Your task to perform on an android device: Clear all items from cart on costco. Add dell alienware to the cart on costco Image 0: 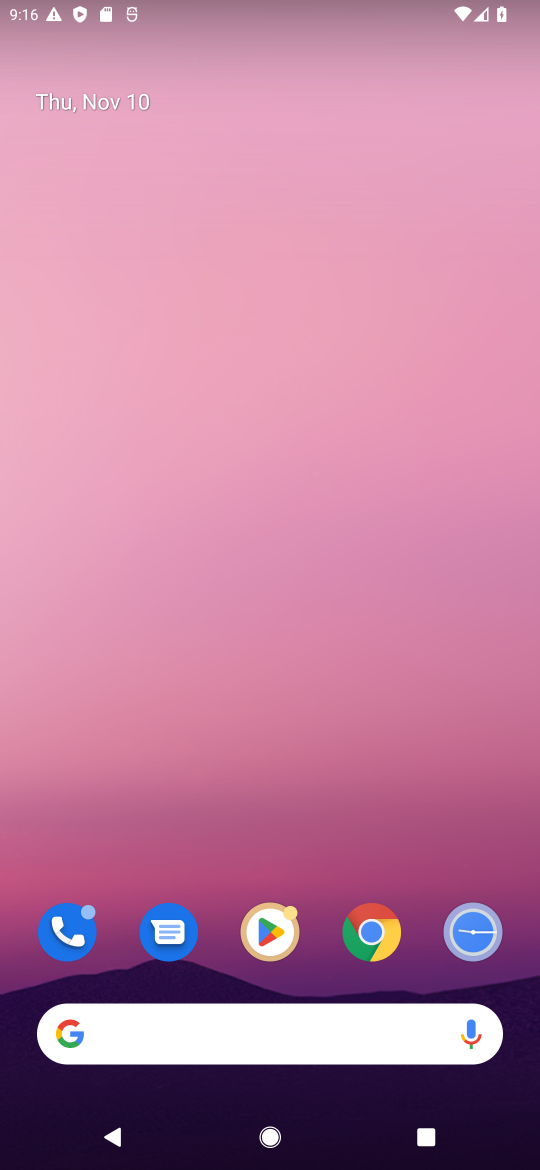
Step 0: click (371, 925)
Your task to perform on an android device: Clear all items from cart on costco. Add dell alienware to the cart on costco Image 1: 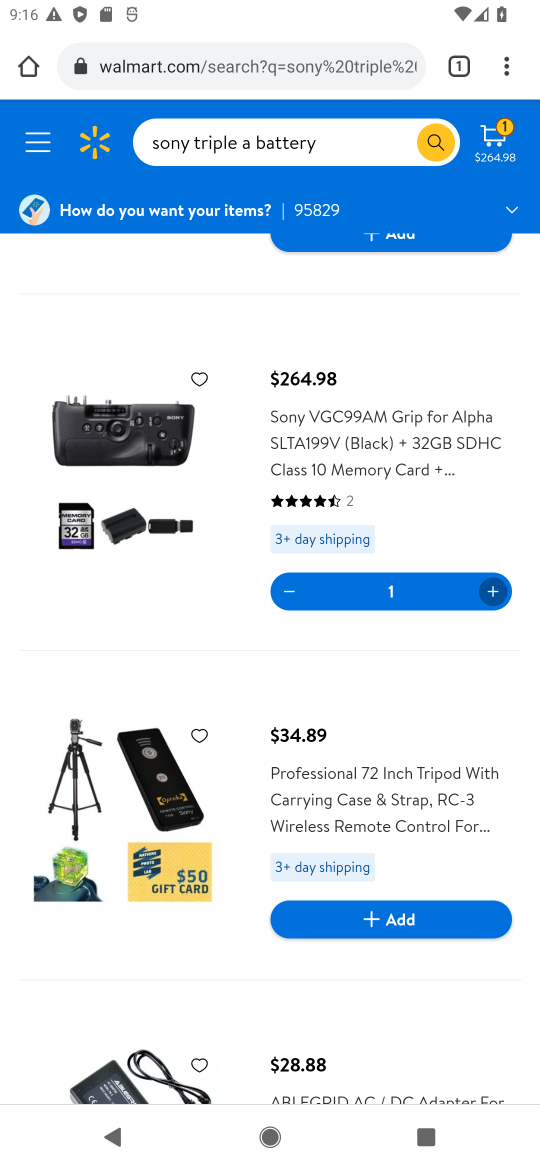
Step 1: click (458, 60)
Your task to perform on an android device: Clear all items from cart on costco. Add dell alienware to the cart on costco Image 2: 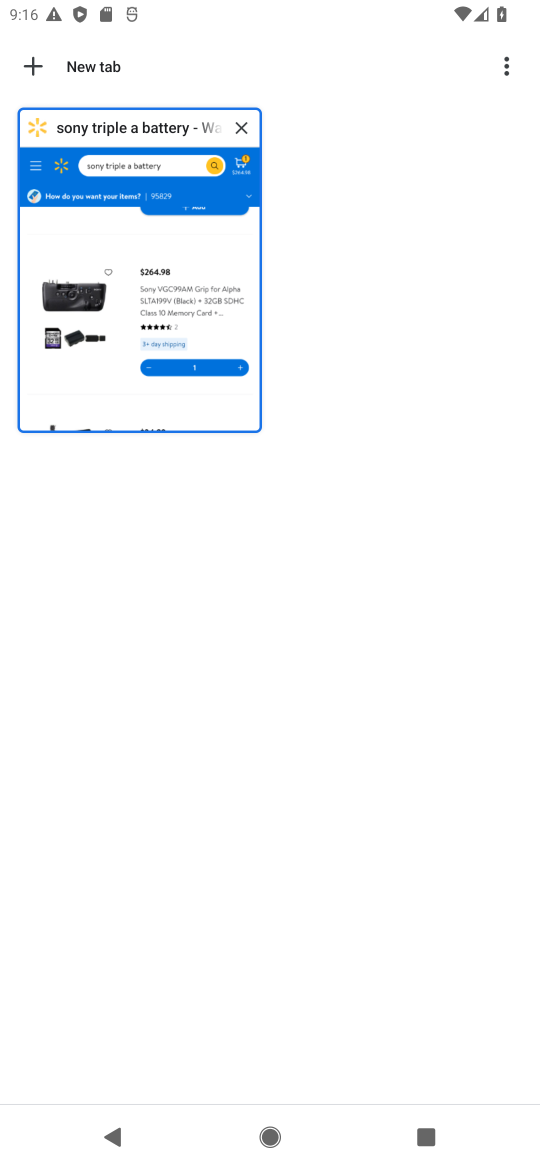
Step 2: click (34, 64)
Your task to perform on an android device: Clear all items from cart on costco. Add dell alienware to the cart on costco Image 3: 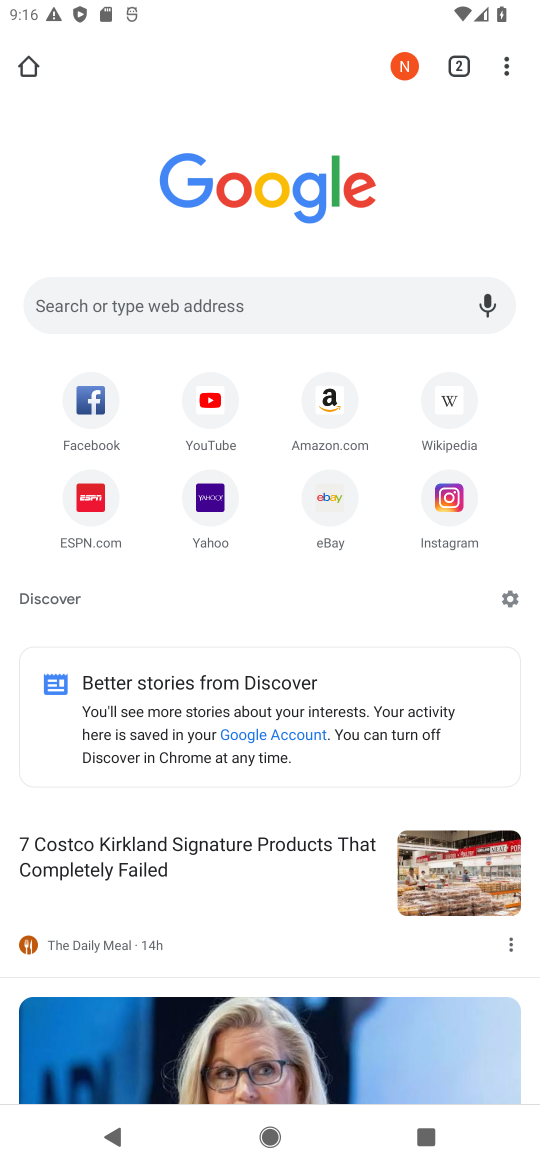
Step 3: click (142, 302)
Your task to perform on an android device: Clear all items from cart on costco. Add dell alienware to the cart on costco Image 4: 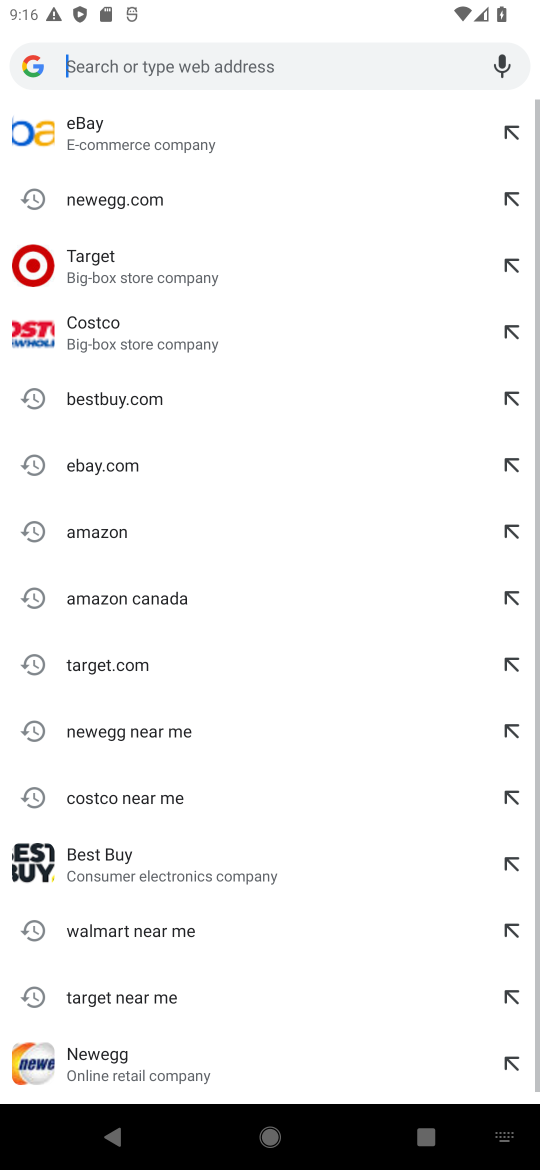
Step 4: click (138, 332)
Your task to perform on an android device: Clear all items from cart on costco. Add dell alienware to the cart on costco Image 5: 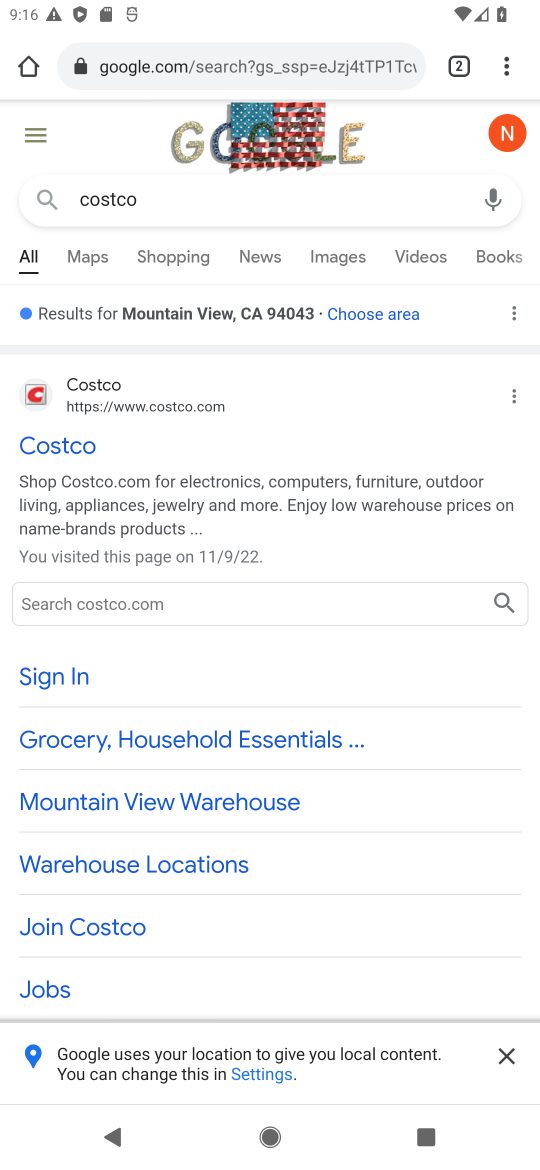
Step 5: click (104, 602)
Your task to perform on an android device: Clear all items from cart on costco. Add dell alienware to the cart on costco Image 6: 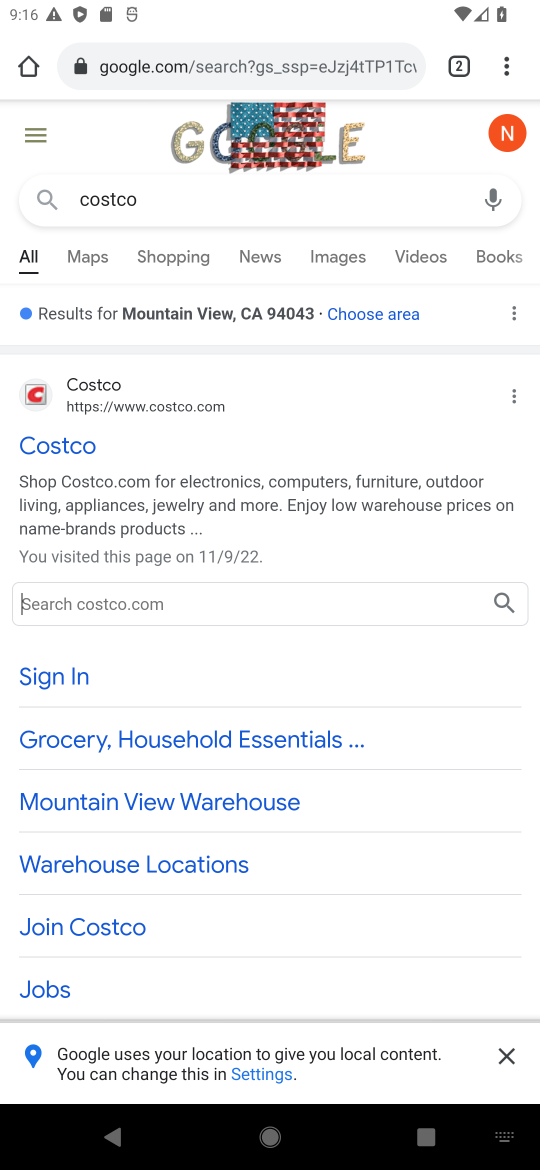
Step 6: type "dell alienware"
Your task to perform on an android device: Clear all items from cart on costco. Add dell alienware to the cart on costco Image 7: 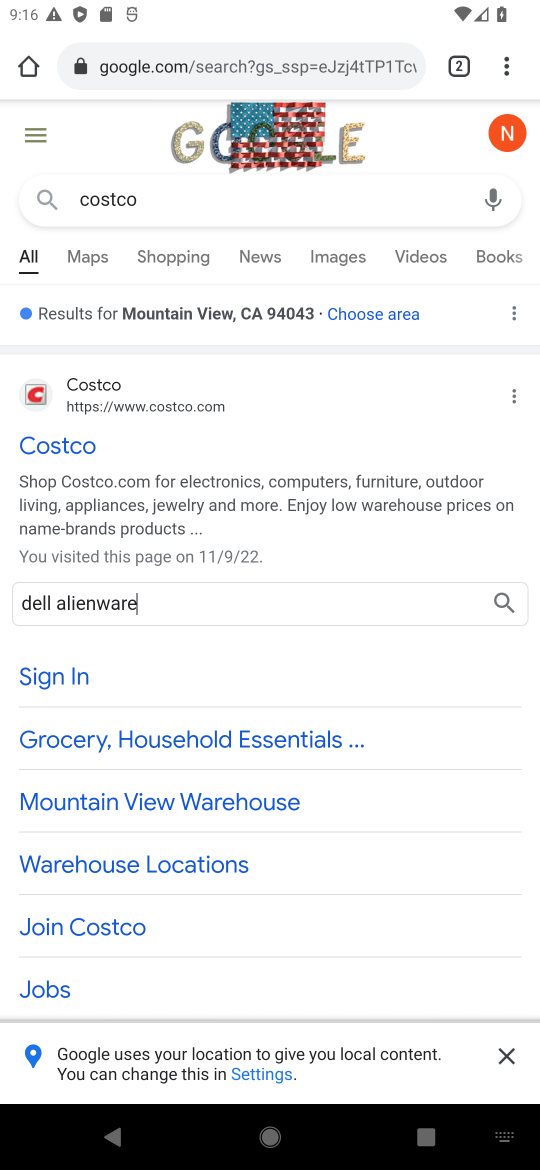
Step 7: click (510, 599)
Your task to perform on an android device: Clear all items from cart on costco. Add dell alienware to the cart on costco Image 8: 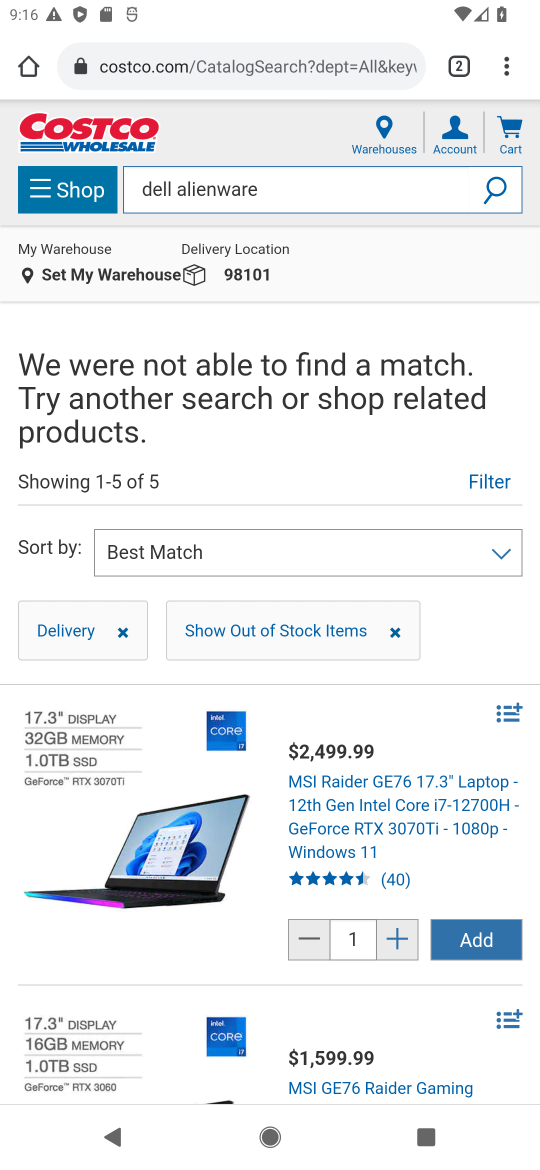
Step 8: task complete